Your task to perform on an android device: Open my contact list Image 0: 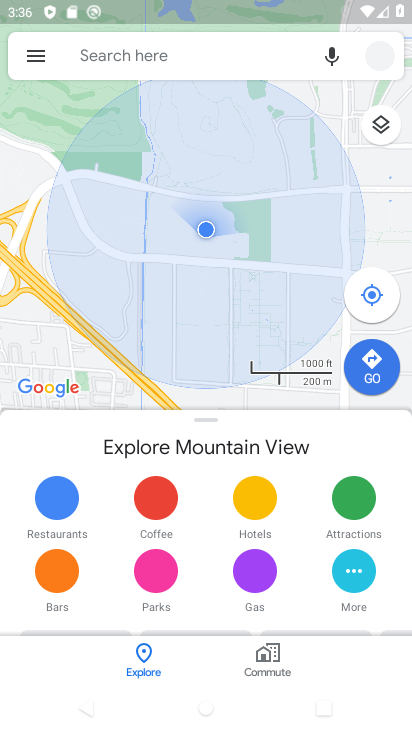
Step 0: press back button
Your task to perform on an android device: Open my contact list Image 1: 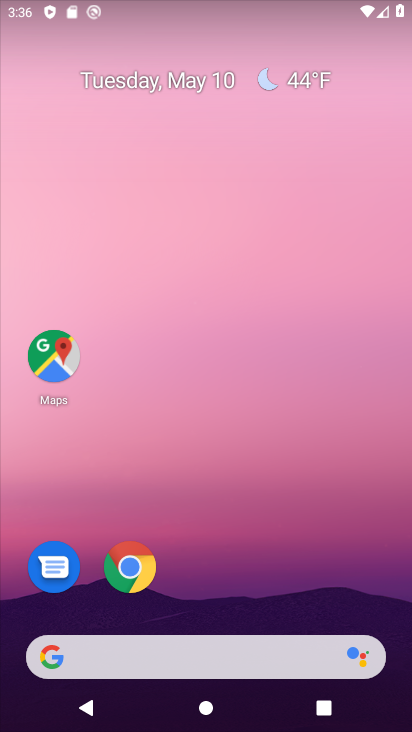
Step 1: drag from (223, 565) to (214, 0)
Your task to perform on an android device: Open my contact list Image 2: 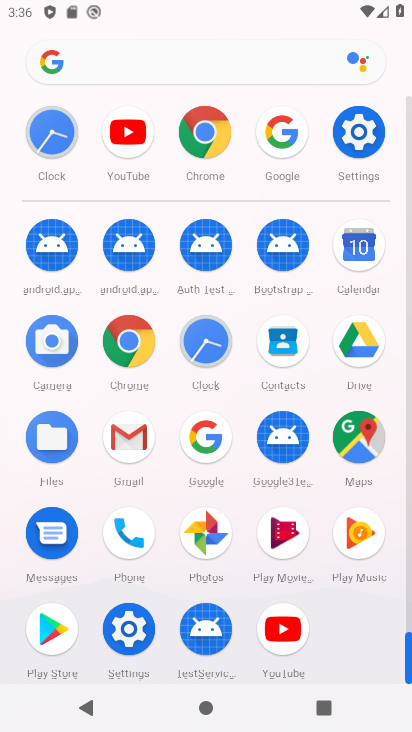
Step 2: click (283, 345)
Your task to perform on an android device: Open my contact list Image 3: 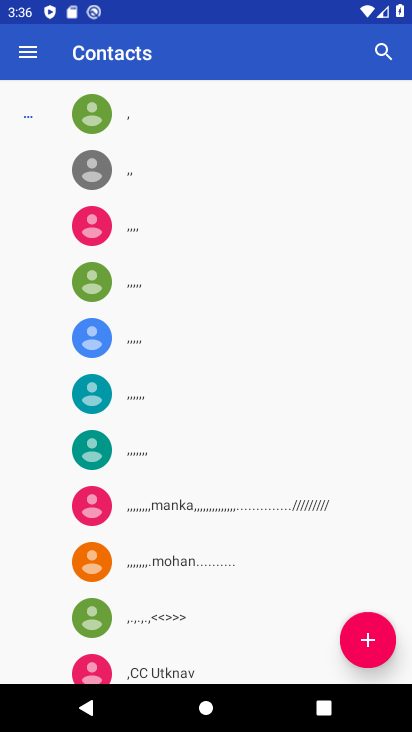
Step 3: task complete